Your task to perform on an android device: change timer sound Image 0: 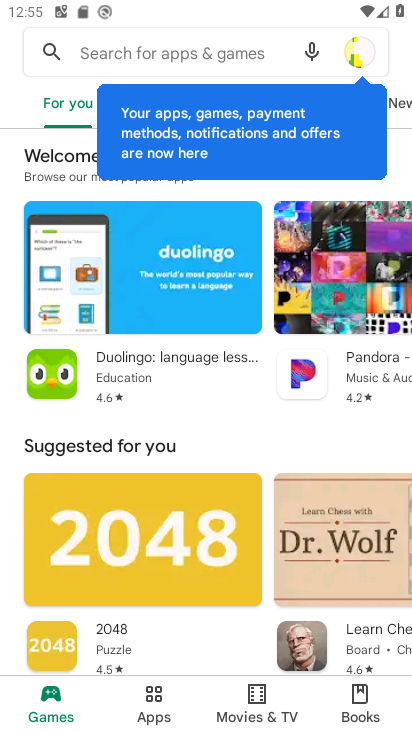
Step 0: press home button
Your task to perform on an android device: change timer sound Image 1: 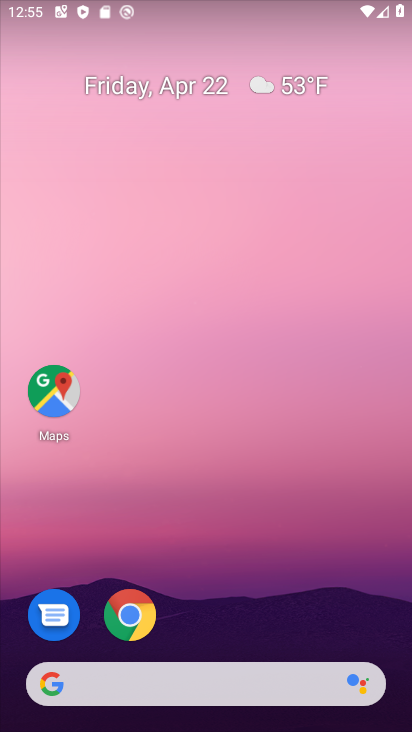
Step 1: drag from (368, 649) to (388, 277)
Your task to perform on an android device: change timer sound Image 2: 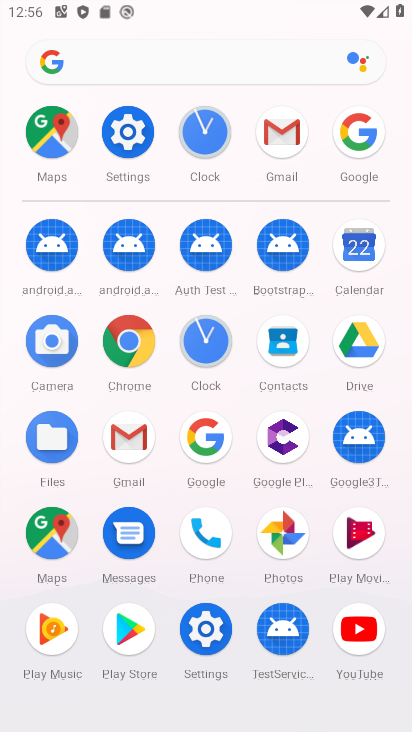
Step 2: click (195, 140)
Your task to perform on an android device: change timer sound Image 3: 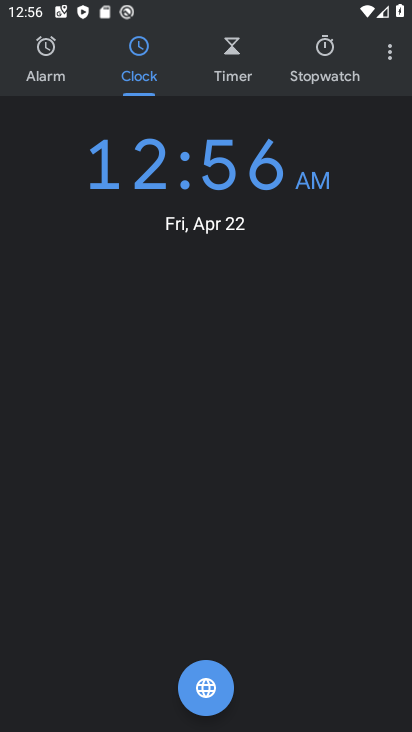
Step 3: click (388, 59)
Your task to perform on an android device: change timer sound Image 4: 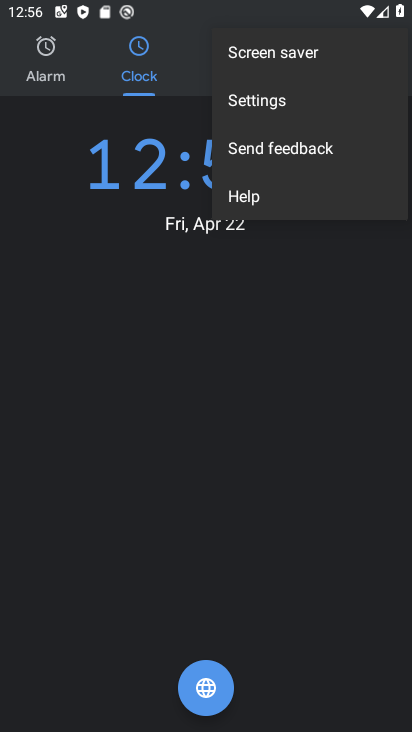
Step 4: click (256, 106)
Your task to perform on an android device: change timer sound Image 5: 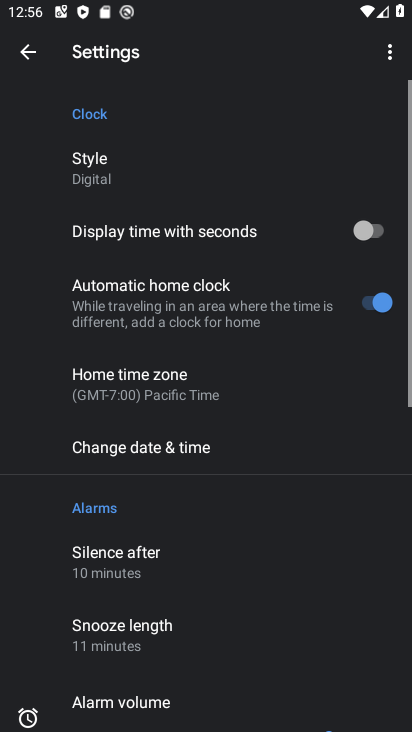
Step 5: drag from (185, 556) to (191, 164)
Your task to perform on an android device: change timer sound Image 6: 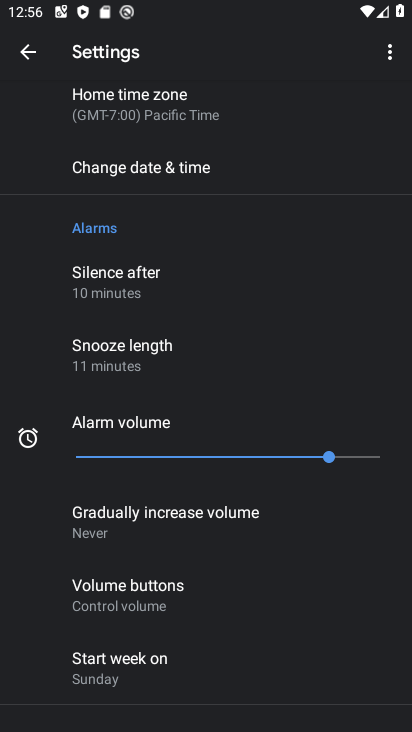
Step 6: drag from (198, 481) to (197, 186)
Your task to perform on an android device: change timer sound Image 7: 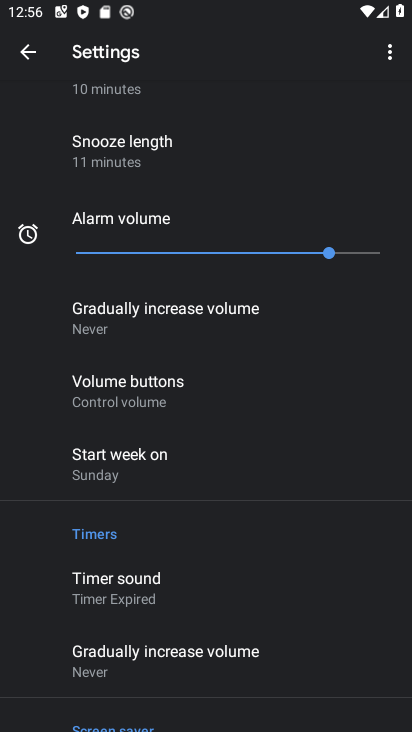
Step 7: drag from (179, 582) to (163, 221)
Your task to perform on an android device: change timer sound Image 8: 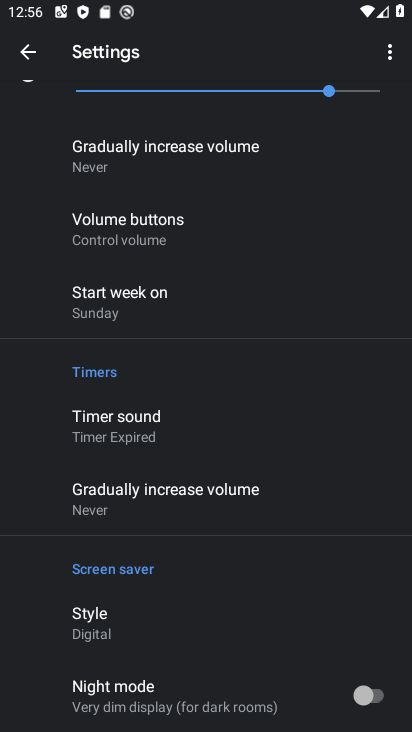
Step 8: click (106, 423)
Your task to perform on an android device: change timer sound Image 9: 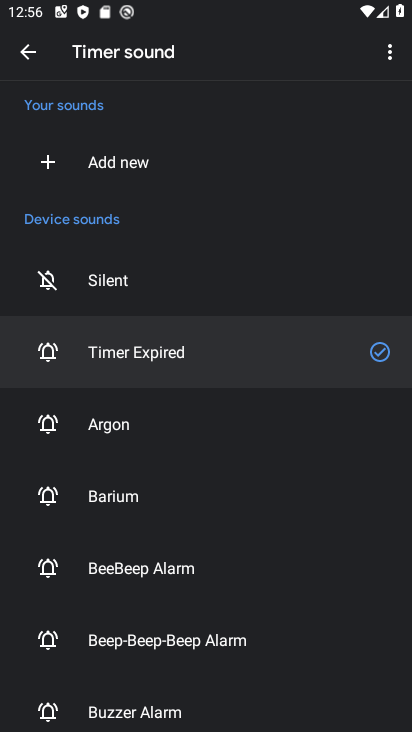
Step 9: click (105, 428)
Your task to perform on an android device: change timer sound Image 10: 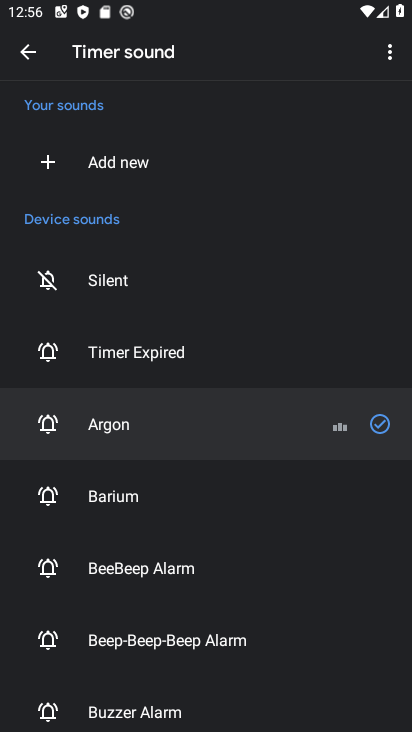
Step 10: task complete